Your task to perform on an android device: toggle priority inbox in the gmail app Image 0: 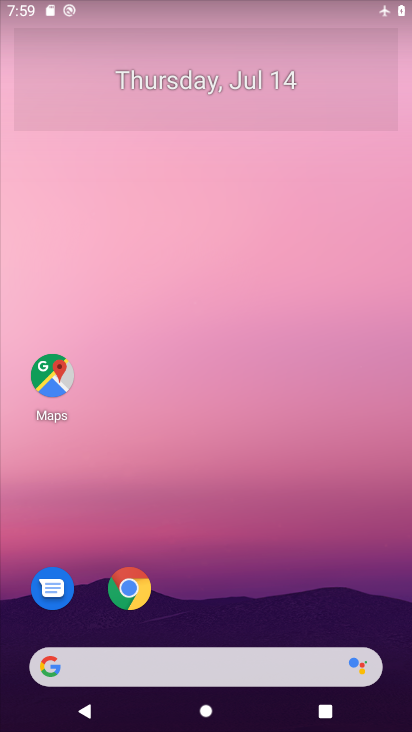
Step 0: drag from (121, 650) to (96, 151)
Your task to perform on an android device: toggle priority inbox in the gmail app Image 1: 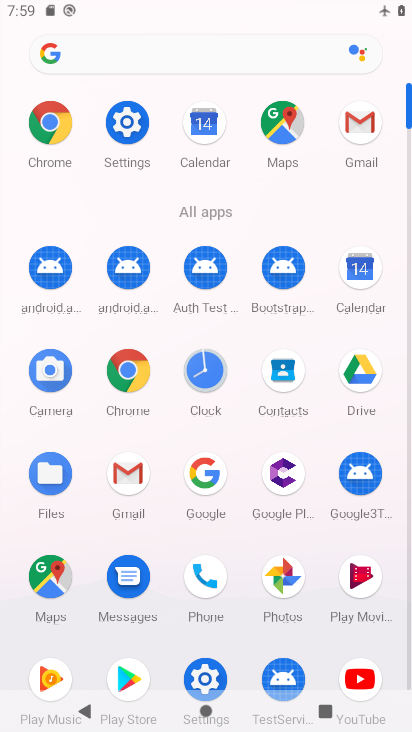
Step 1: click (131, 472)
Your task to perform on an android device: toggle priority inbox in the gmail app Image 2: 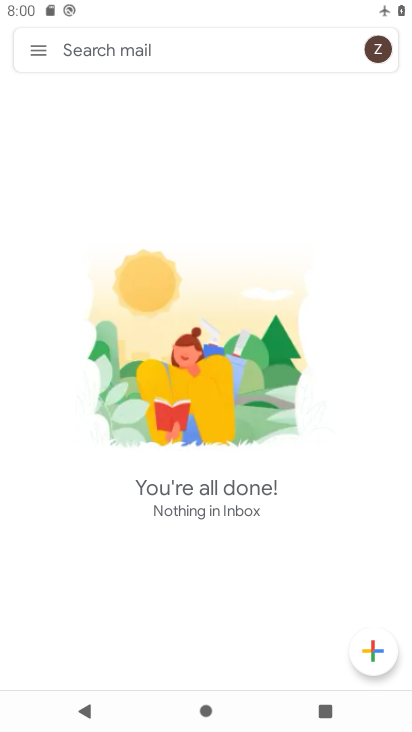
Step 2: click (44, 49)
Your task to perform on an android device: toggle priority inbox in the gmail app Image 3: 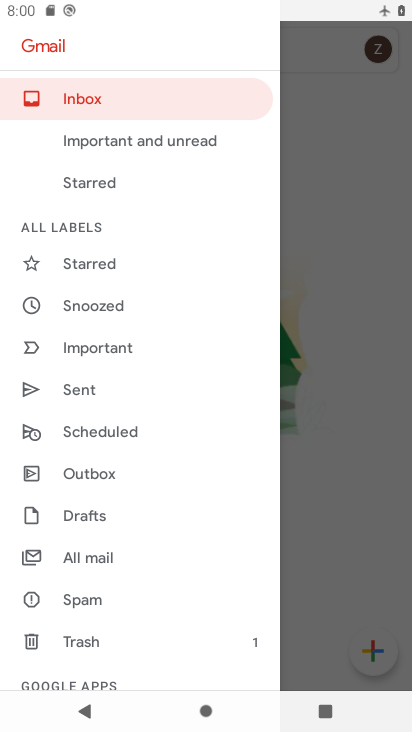
Step 3: drag from (74, 609) to (7, 206)
Your task to perform on an android device: toggle priority inbox in the gmail app Image 4: 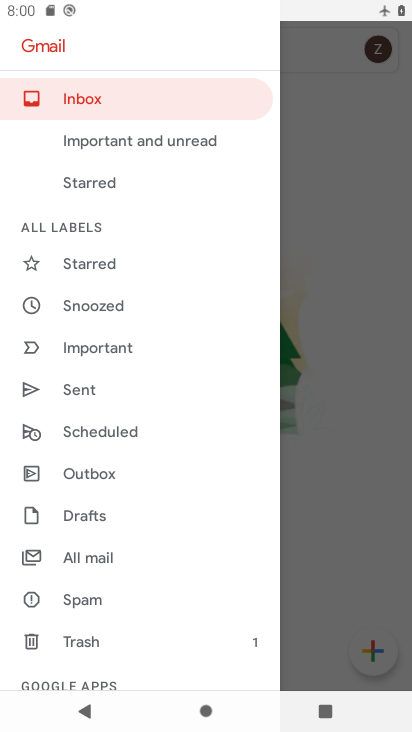
Step 4: drag from (112, 573) to (146, 9)
Your task to perform on an android device: toggle priority inbox in the gmail app Image 5: 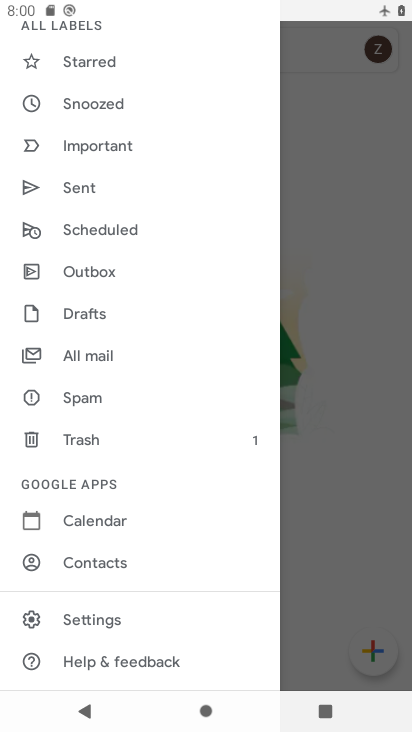
Step 5: click (45, 627)
Your task to perform on an android device: toggle priority inbox in the gmail app Image 6: 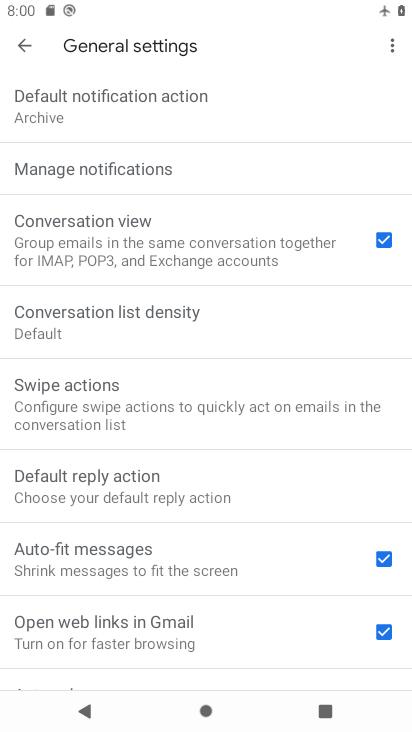
Step 6: click (27, 46)
Your task to perform on an android device: toggle priority inbox in the gmail app Image 7: 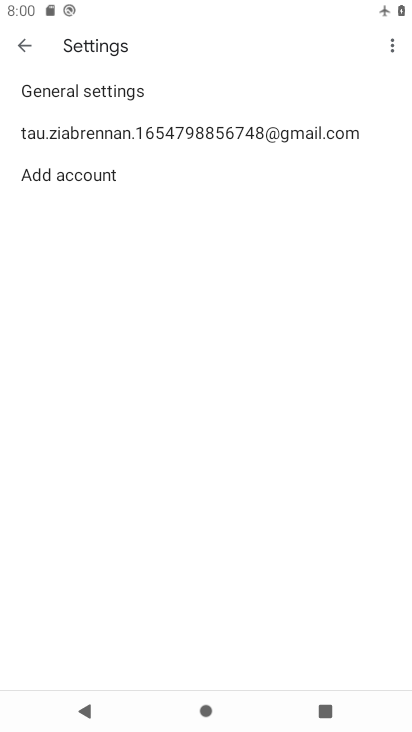
Step 7: click (35, 143)
Your task to perform on an android device: toggle priority inbox in the gmail app Image 8: 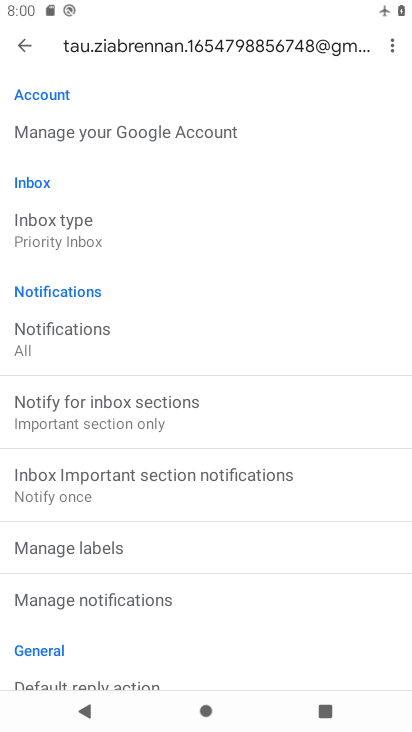
Step 8: click (50, 227)
Your task to perform on an android device: toggle priority inbox in the gmail app Image 9: 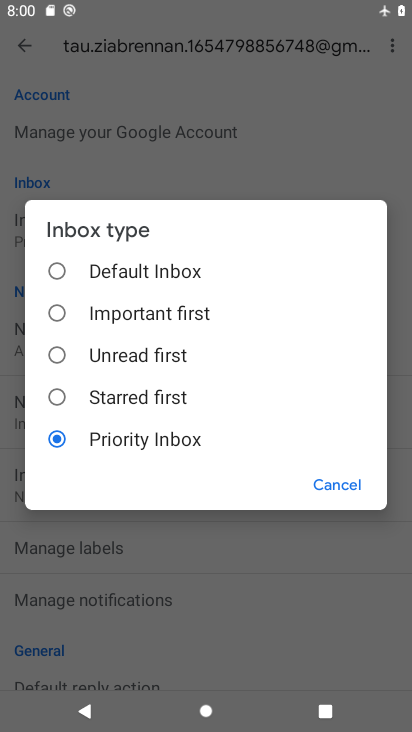
Step 9: click (73, 441)
Your task to perform on an android device: toggle priority inbox in the gmail app Image 10: 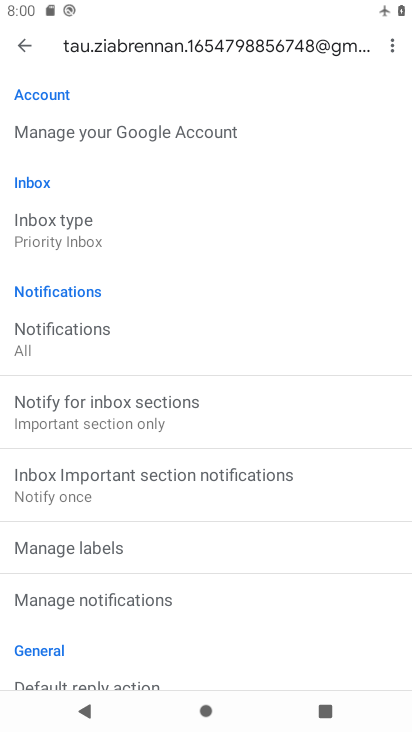
Step 10: task complete